Your task to perform on an android device: turn on sleep mode Image 0: 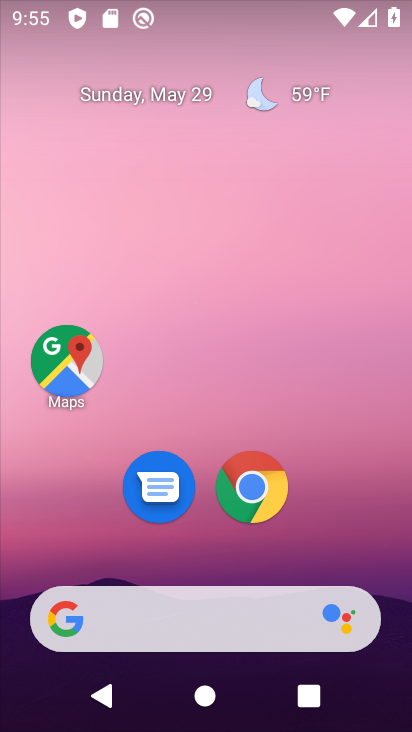
Step 0: drag from (392, 676) to (353, 99)
Your task to perform on an android device: turn on sleep mode Image 1: 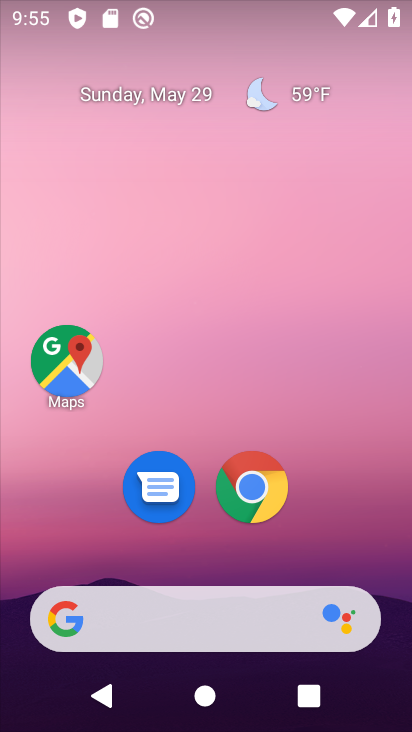
Step 1: drag from (397, 704) to (365, 26)
Your task to perform on an android device: turn on sleep mode Image 2: 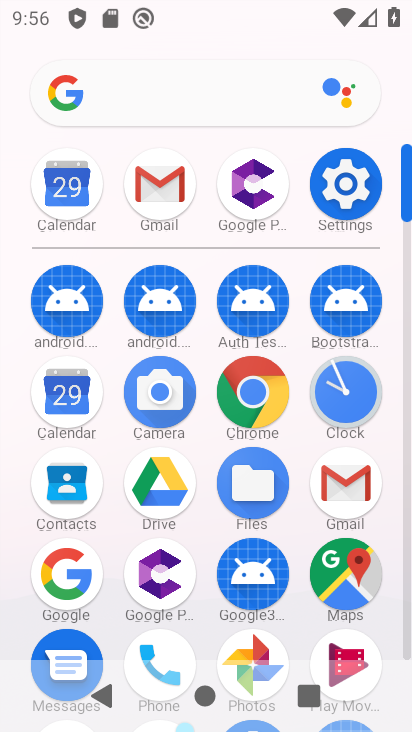
Step 2: click (346, 181)
Your task to perform on an android device: turn on sleep mode Image 3: 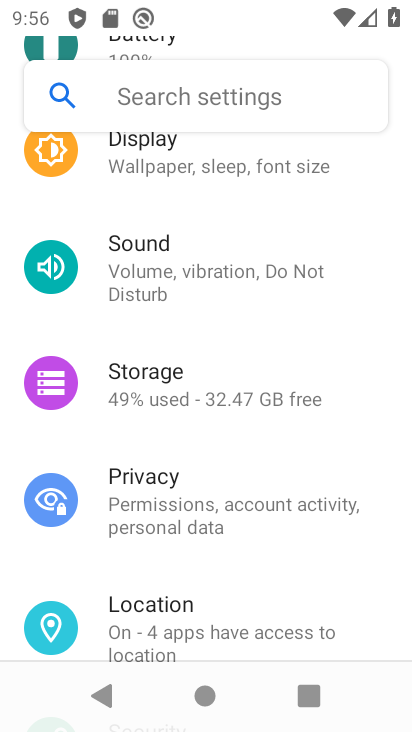
Step 3: click (147, 159)
Your task to perform on an android device: turn on sleep mode Image 4: 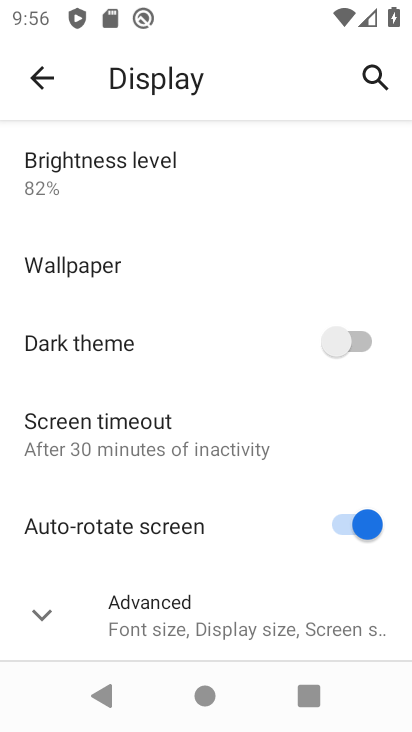
Step 4: drag from (241, 456) to (243, 282)
Your task to perform on an android device: turn on sleep mode Image 5: 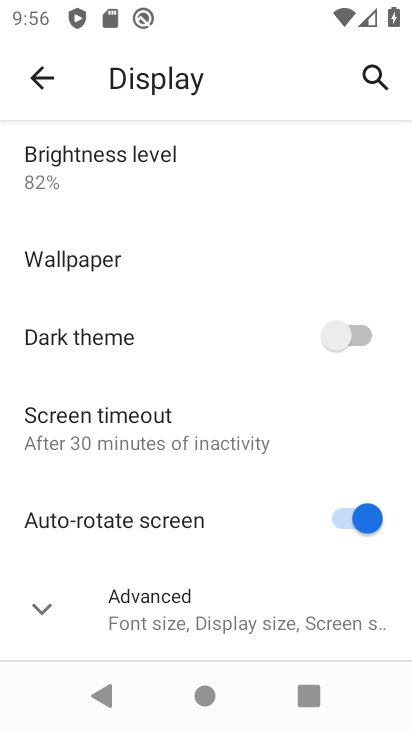
Step 5: click (39, 612)
Your task to perform on an android device: turn on sleep mode Image 6: 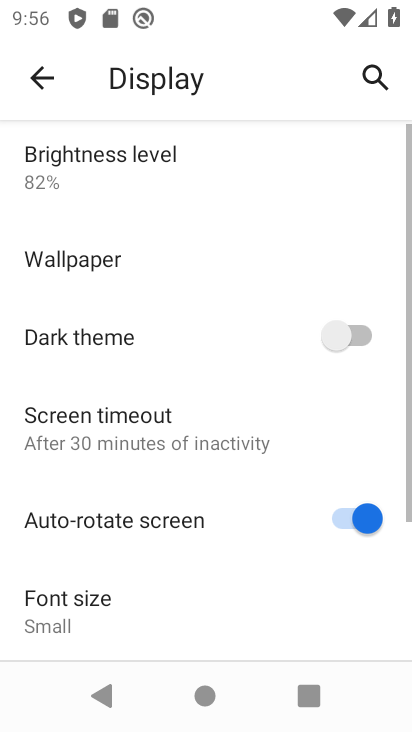
Step 6: click (73, 436)
Your task to perform on an android device: turn on sleep mode Image 7: 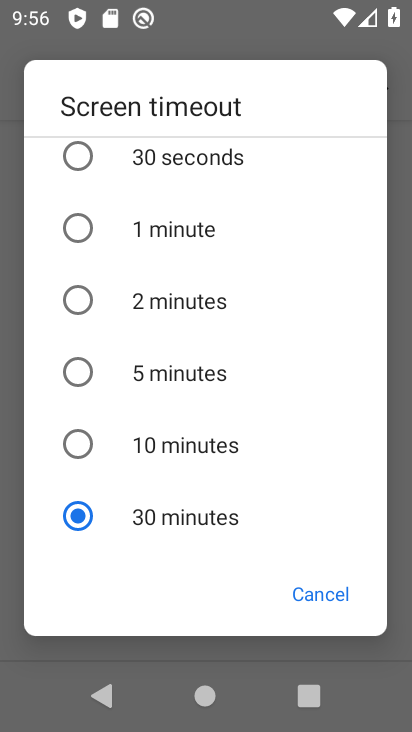
Step 7: task complete